Your task to perform on an android device: What's the weather today? Image 0: 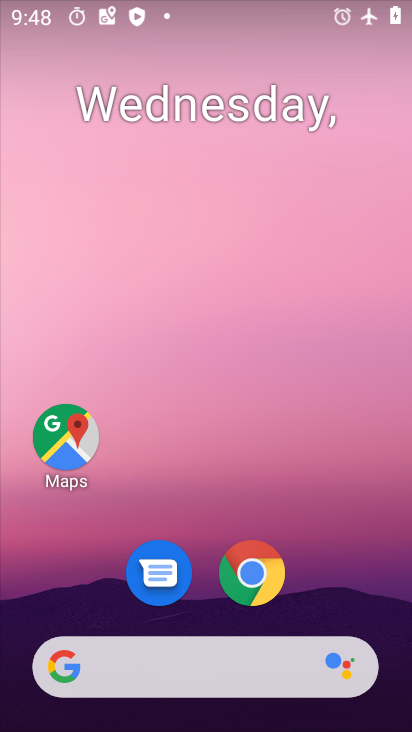
Step 0: drag from (302, 672) to (251, 19)
Your task to perform on an android device: What's the weather today? Image 1: 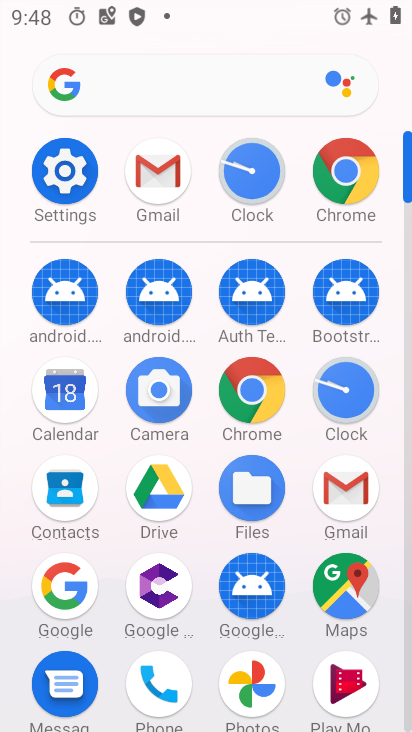
Step 1: click (64, 613)
Your task to perform on an android device: What's the weather today? Image 2: 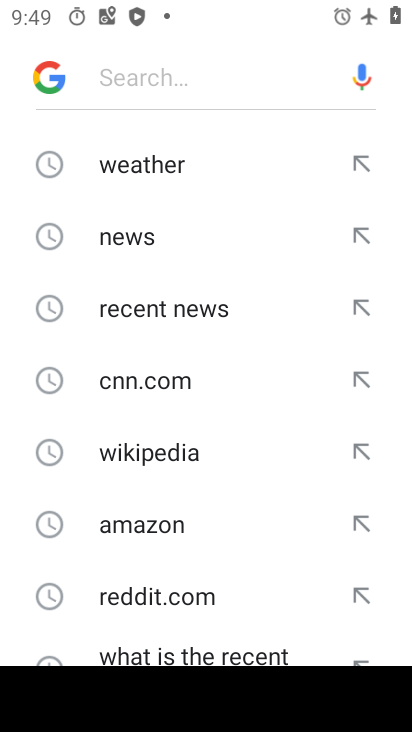
Step 2: click (214, 172)
Your task to perform on an android device: What's the weather today? Image 3: 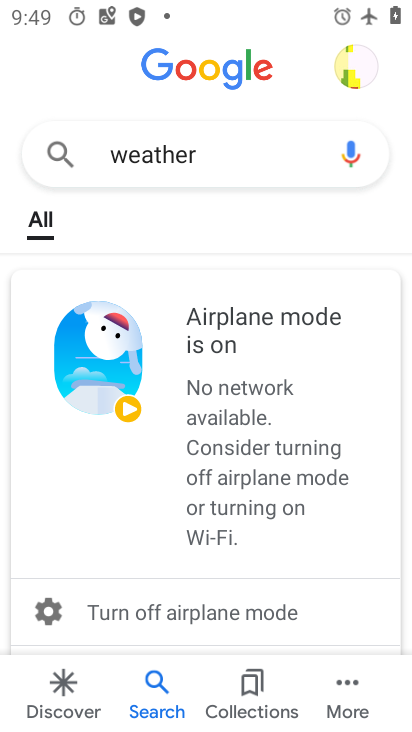
Step 3: task complete